Your task to perform on an android device: show emergency info Image 0: 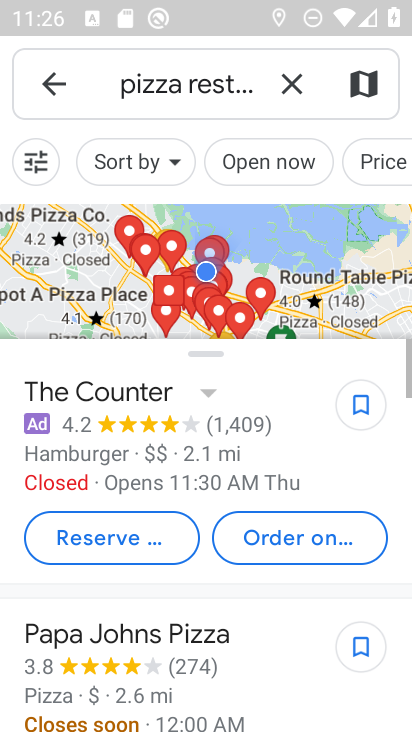
Step 0: press home button
Your task to perform on an android device: show emergency info Image 1: 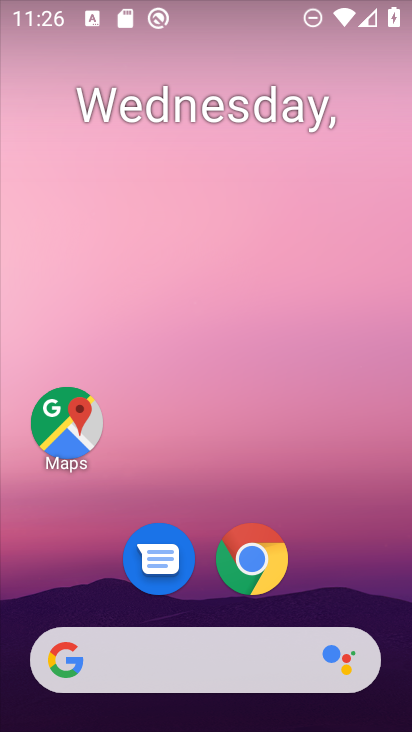
Step 1: drag from (186, 631) to (297, 301)
Your task to perform on an android device: show emergency info Image 2: 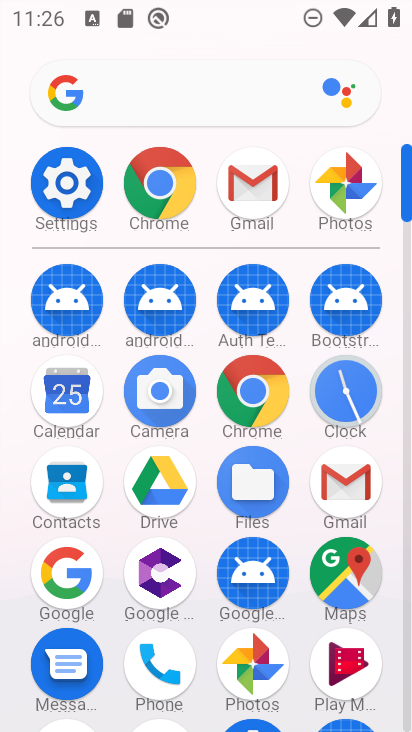
Step 2: click (78, 186)
Your task to perform on an android device: show emergency info Image 3: 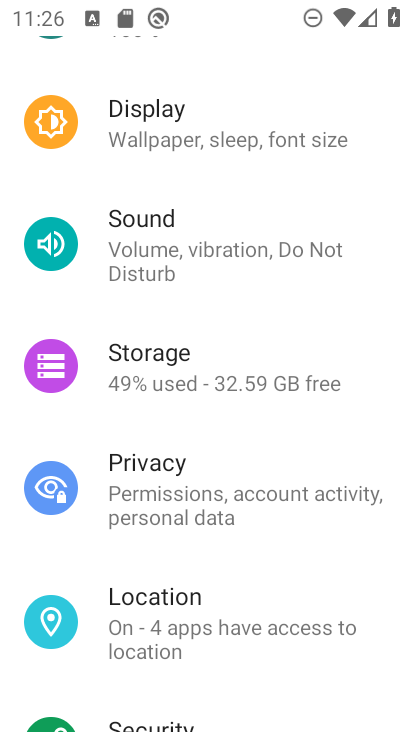
Step 3: drag from (218, 533) to (310, 285)
Your task to perform on an android device: show emergency info Image 4: 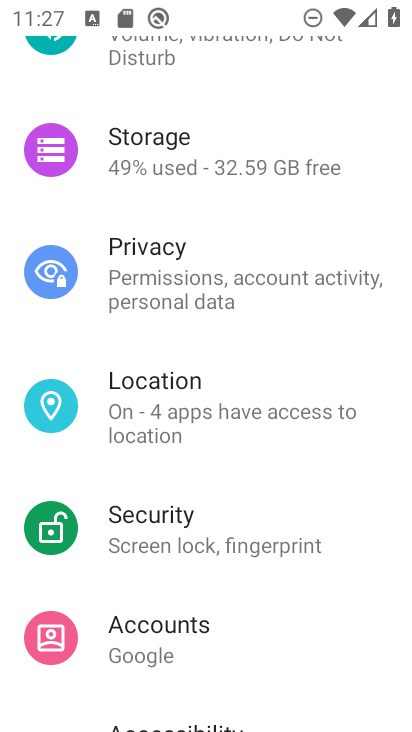
Step 4: drag from (270, 512) to (377, 242)
Your task to perform on an android device: show emergency info Image 5: 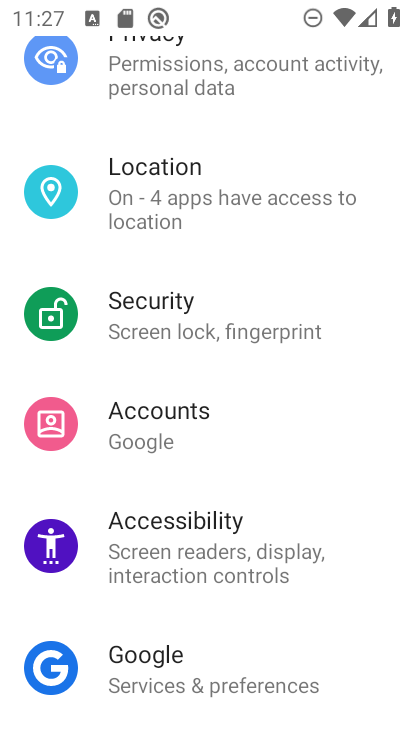
Step 5: drag from (233, 549) to (335, 262)
Your task to perform on an android device: show emergency info Image 6: 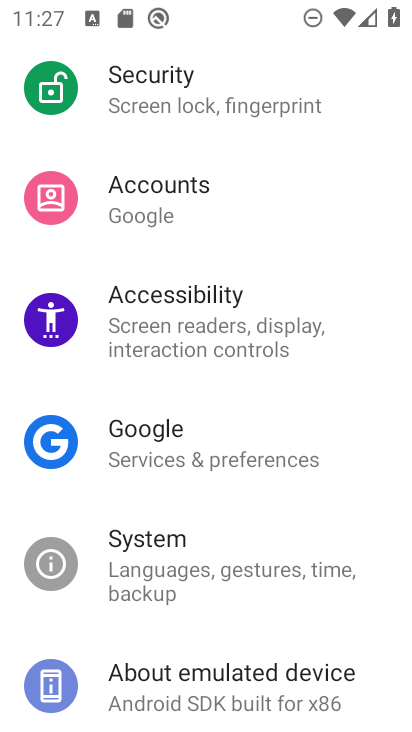
Step 6: drag from (209, 597) to (291, 252)
Your task to perform on an android device: show emergency info Image 7: 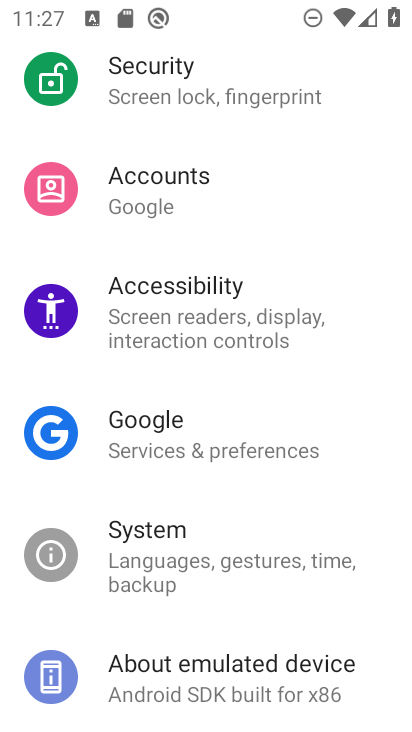
Step 7: click (259, 686)
Your task to perform on an android device: show emergency info Image 8: 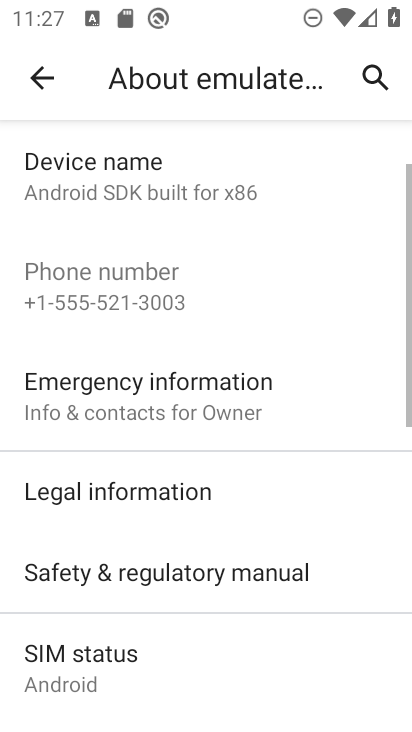
Step 8: task complete